Your task to perform on an android device: Open Maps and search for coffee Image 0: 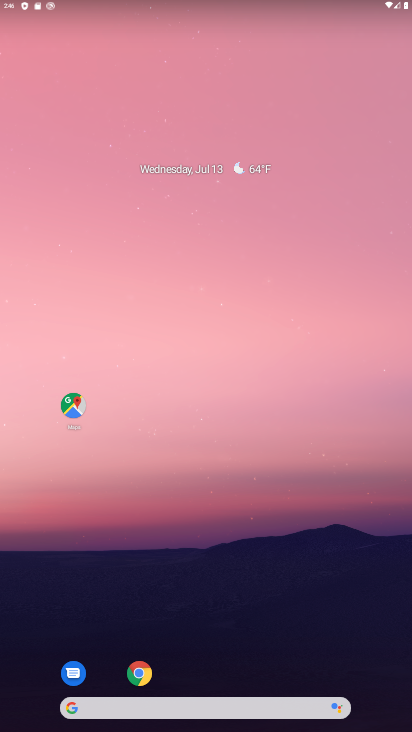
Step 0: drag from (292, 612) to (379, 128)
Your task to perform on an android device: Open Maps and search for coffee Image 1: 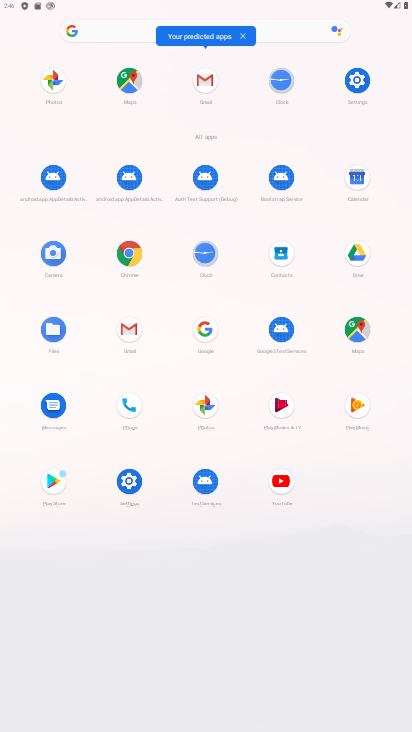
Step 1: click (346, 321)
Your task to perform on an android device: Open Maps and search for coffee Image 2: 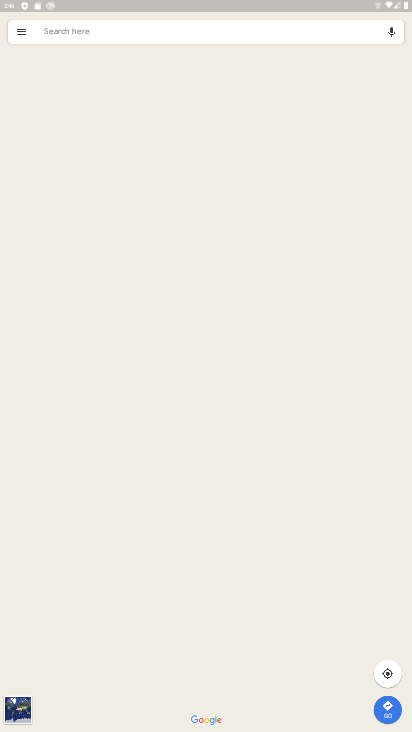
Step 2: click (172, 32)
Your task to perform on an android device: Open Maps and search for coffee Image 3: 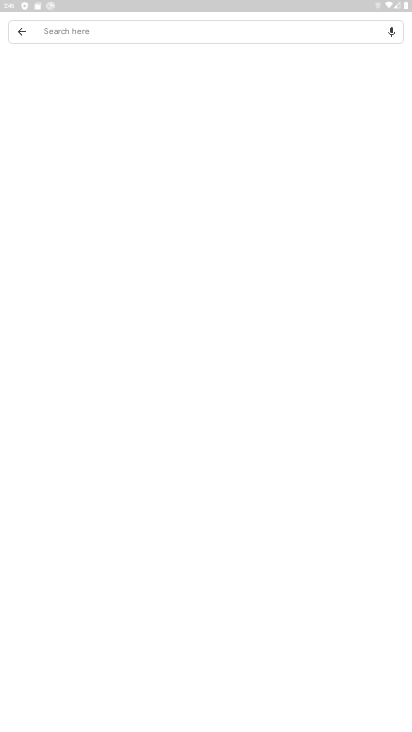
Step 3: click (170, 27)
Your task to perform on an android device: Open Maps and search for coffee Image 4: 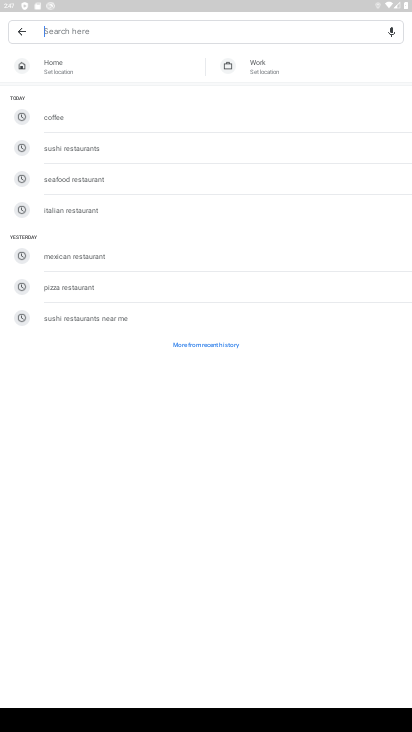
Step 4: type "coffee"
Your task to perform on an android device: Open Maps and search for coffee Image 5: 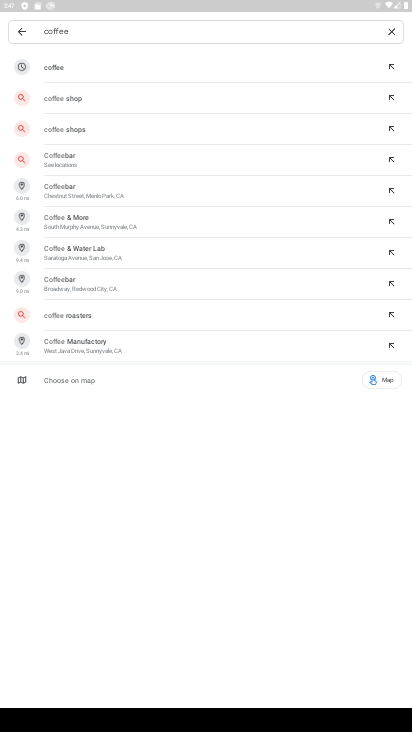
Step 5: click (81, 71)
Your task to perform on an android device: Open Maps and search for coffee Image 6: 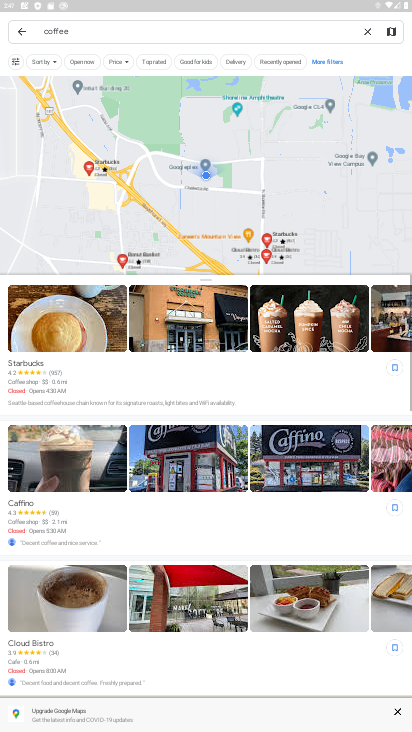
Step 6: task complete